Your task to perform on an android device: uninstall "HBO Max: Stream TV & Movies" Image 0: 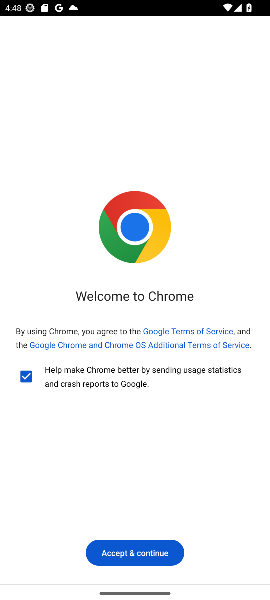
Step 0: press home button
Your task to perform on an android device: uninstall "HBO Max: Stream TV & Movies" Image 1: 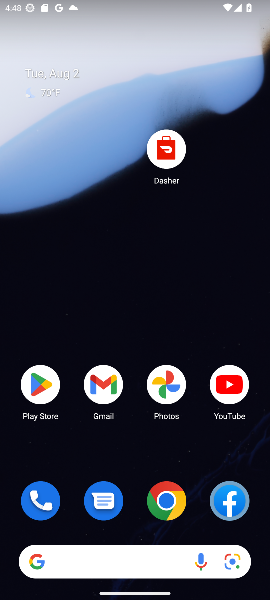
Step 1: click (44, 394)
Your task to perform on an android device: uninstall "HBO Max: Stream TV & Movies" Image 2: 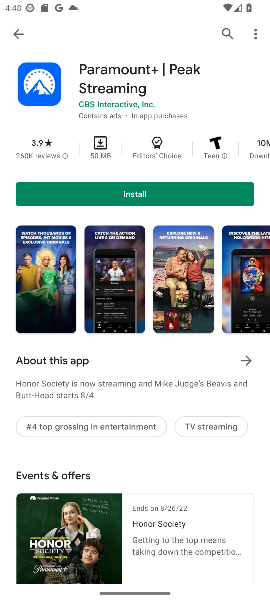
Step 2: click (222, 37)
Your task to perform on an android device: uninstall "HBO Max: Stream TV & Movies" Image 3: 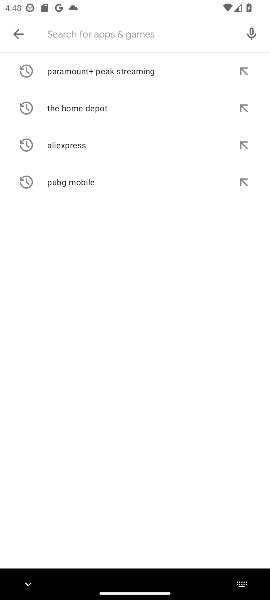
Step 3: type "HBO Max: Stream TV & Movies"
Your task to perform on an android device: uninstall "HBO Max: Stream TV & Movies" Image 4: 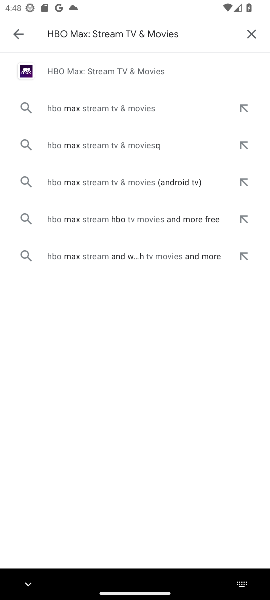
Step 4: click (81, 83)
Your task to perform on an android device: uninstall "HBO Max: Stream TV & Movies" Image 5: 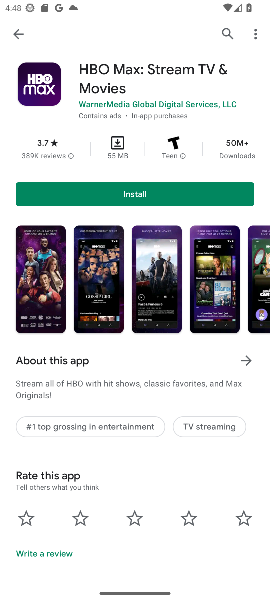
Step 5: task complete